Your task to perform on an android device: check storage Image 0: 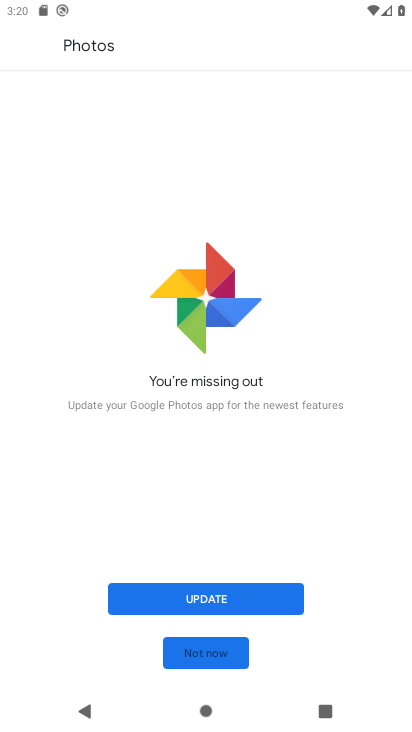
Step 0: press home button
Your task to perform on an android device: check storage Image 1: 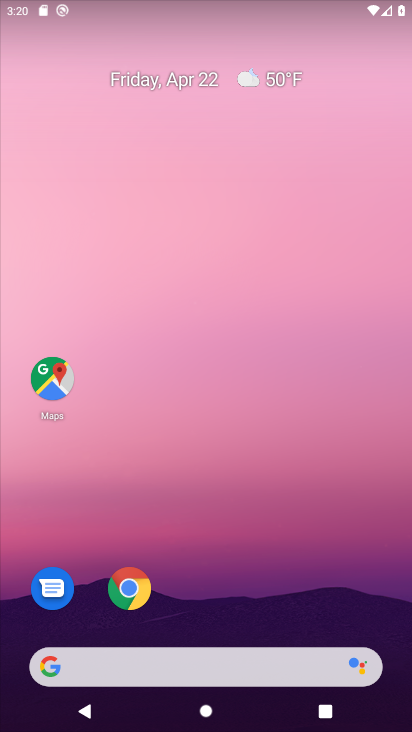
Step 1: drag from (366, 580) to (367, 138)
Your task to perform on an android device: check storage Image 2: 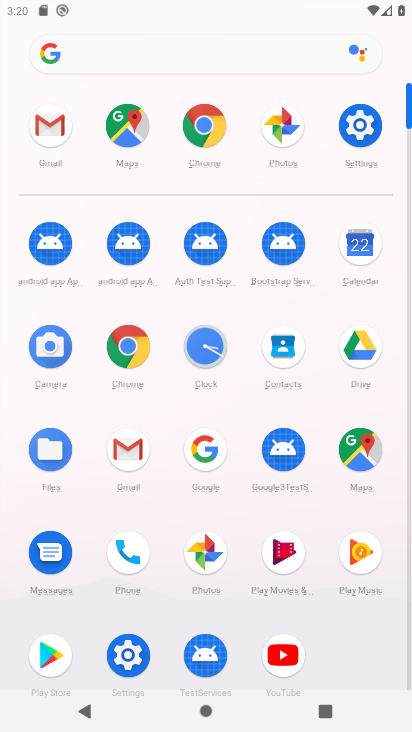
Step 2: click (360, 126)
Your task to perform on an android device: check storage Image 3: 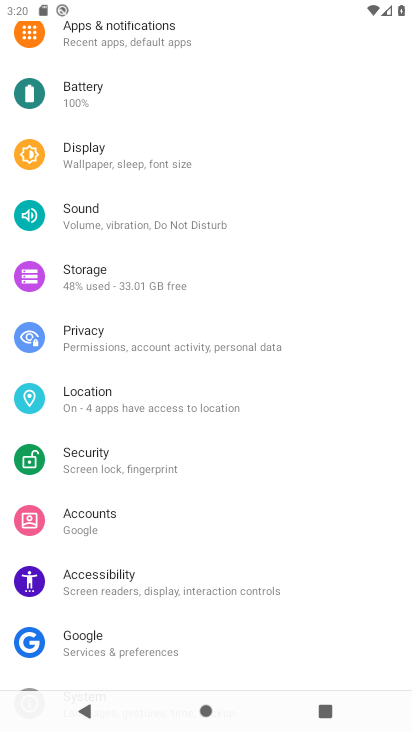
Step 3: drag from (336, 504) to (334, 340)
Your task to perform on an android device: check storage Image 4: 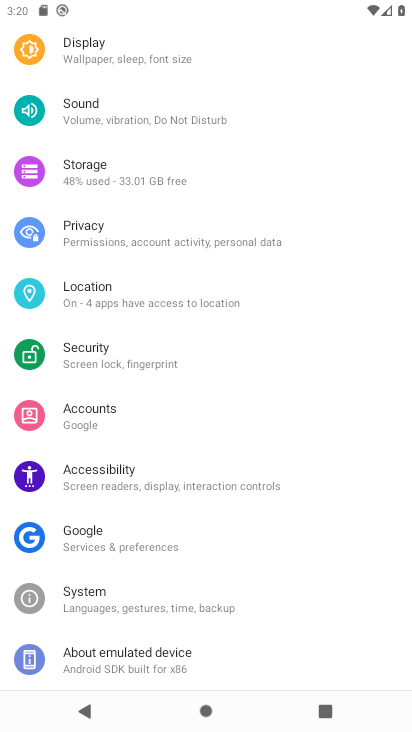
Step 4: drag from (333, 556) to (349, 374)
Your task to perform on an android device: check storage Image 5: 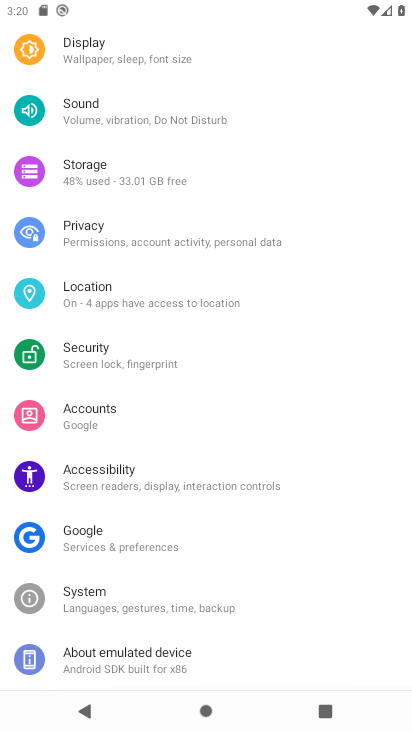
Step 5: drag from (353, 297) to (352, 407)
Your task to perform on an android device: check storage Image 6: 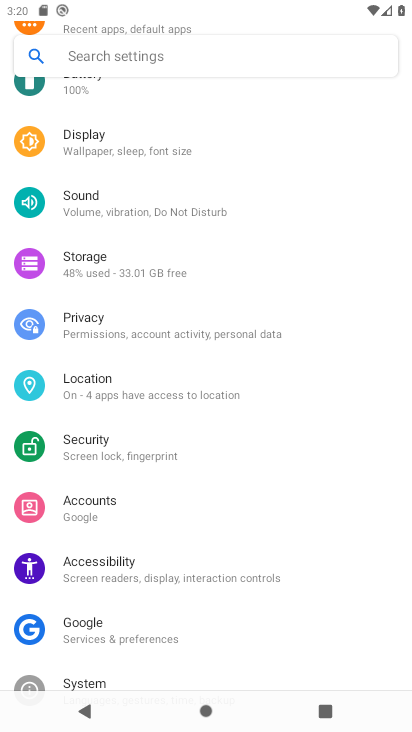
Step 6: drag from (339, 266) to (345, 396)
Your task to perform on an android device: check storage Image 7: 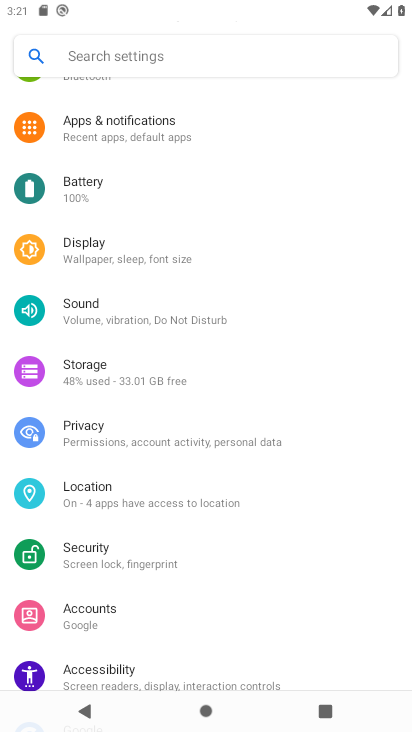
Step 7: drag from (342, 269) to (346, 370)
Your task to perform on an android device: check storage Image 8: 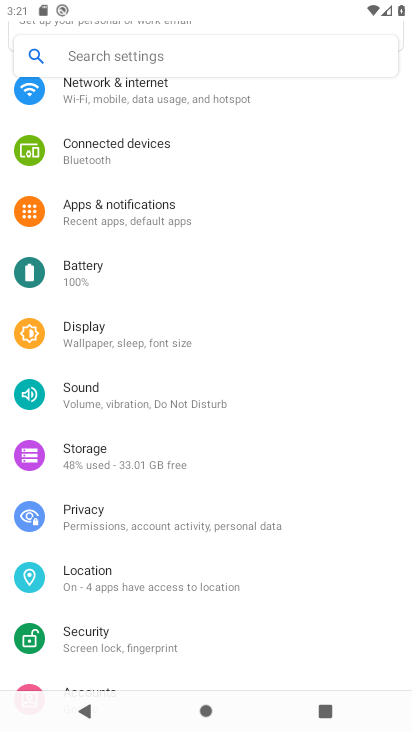
Step 8: click (187, 465)
Your task to perform on an android device: check storage Image 9: 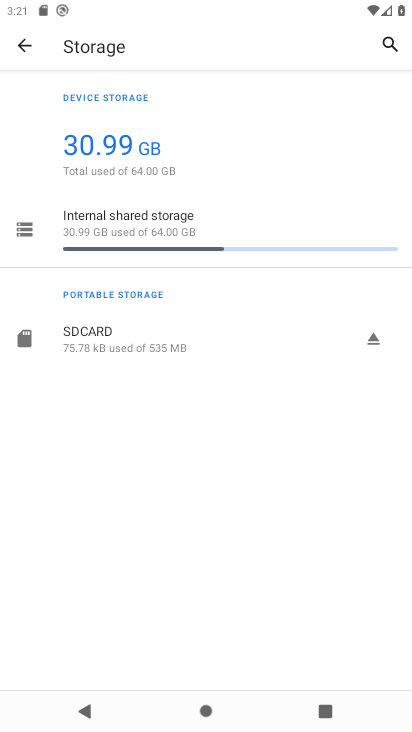
Step 9: task complete